Your task to perform on an android device: toggle javascript in the chrome app Image 0: 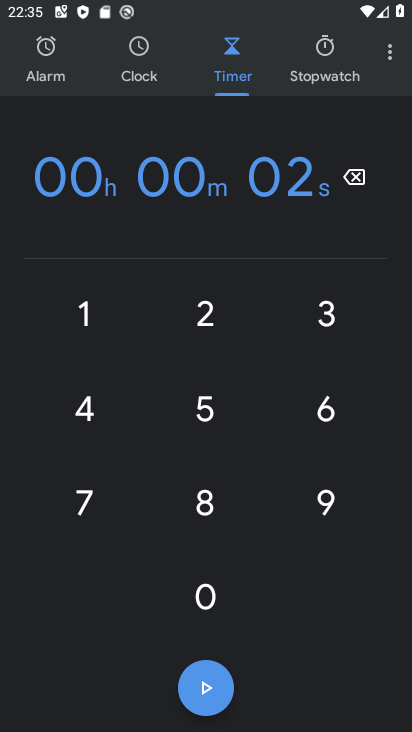
Step 0: press home button
Your task to perform on an android device: toggle javascript in the chrome app Image 1: 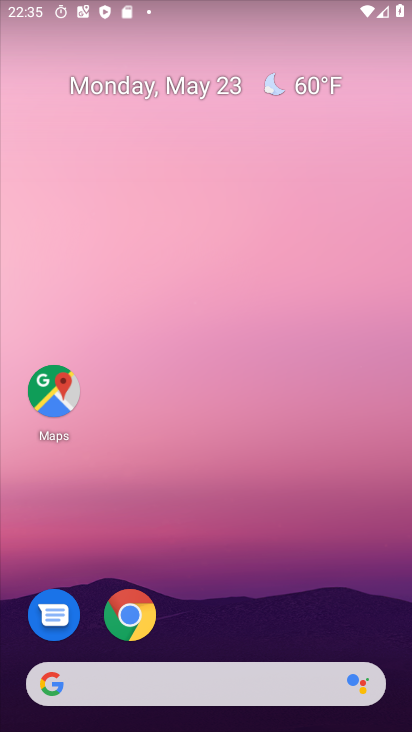
Step 1: drag from (222, 607) to (213, 155)
Your task to perform on an android device: toggle javascript in the chrome app Image 2: 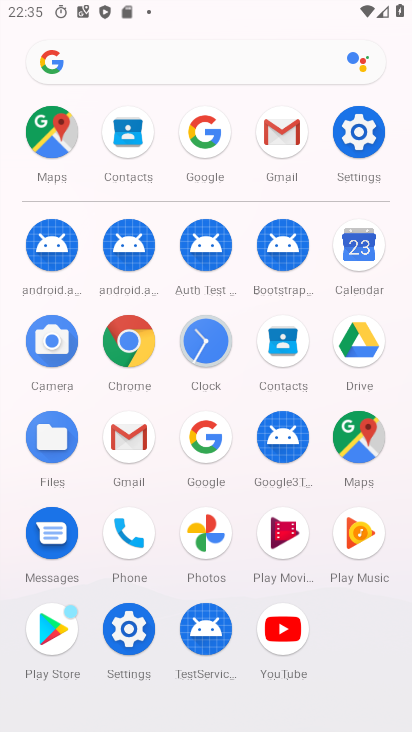
Step 2: click (130, 346)
Your task to perform on an android device: toggle javascript in the chrome app Image 3: 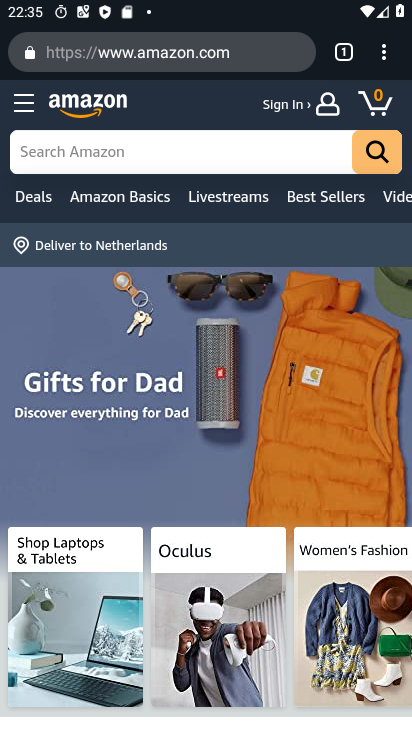
Step 3: click (381, 53)
Your task to perform on an android device: toggle javascript in the chrome app Image 4: 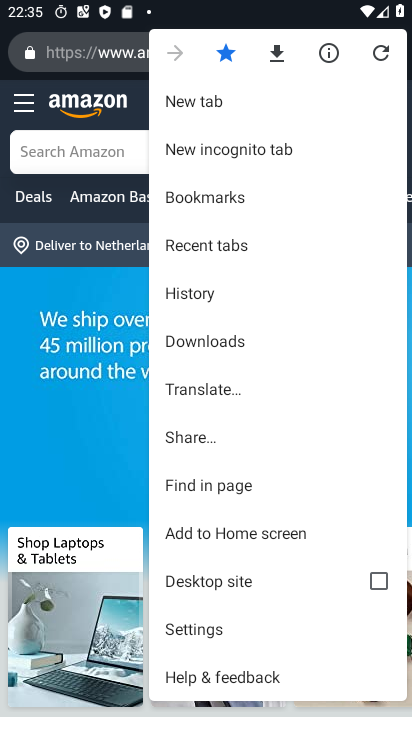
Step 4: click (219, 630)
Your task to perform on an android device: toggle javascript in the chrome app Image 5: 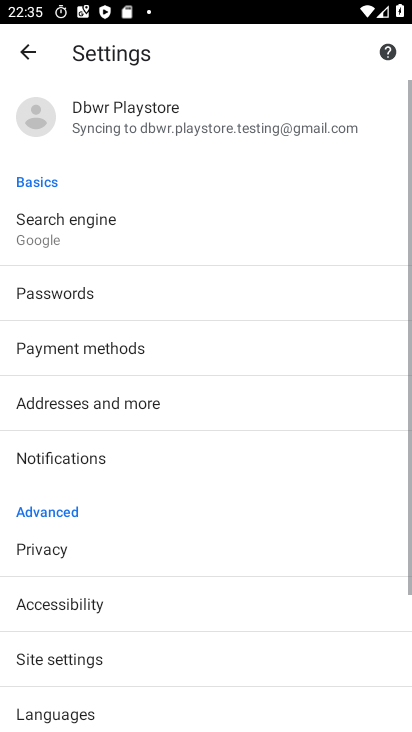
Step 5: drag from (228, 612) to (210, 307)
Your task to perform on an android device: toggle javascript in the chrome app Image 6: 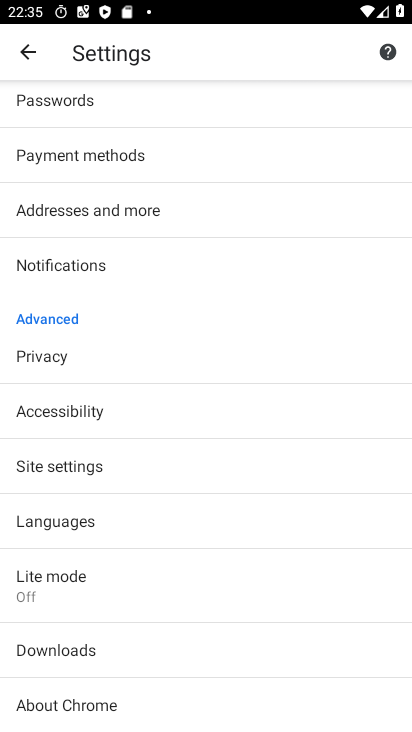
Step 6: click (71, 462)
Your task to perform on an android device: toggle javascript in the chrome app Image 7: 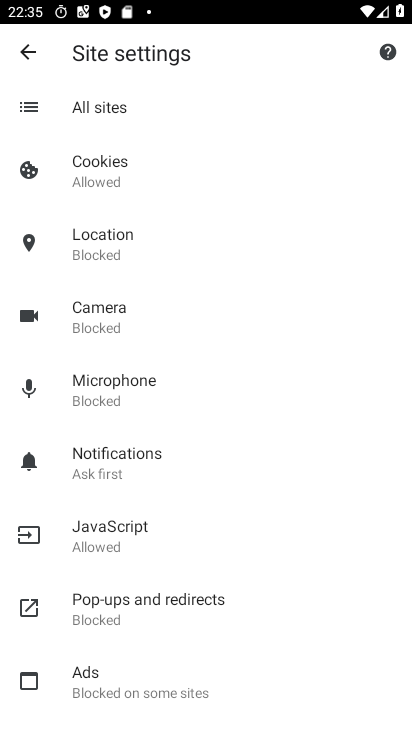
Step 7: click (125, 540)
Your task to perform on an android device: toggle javascript in the chrome app Image 8: 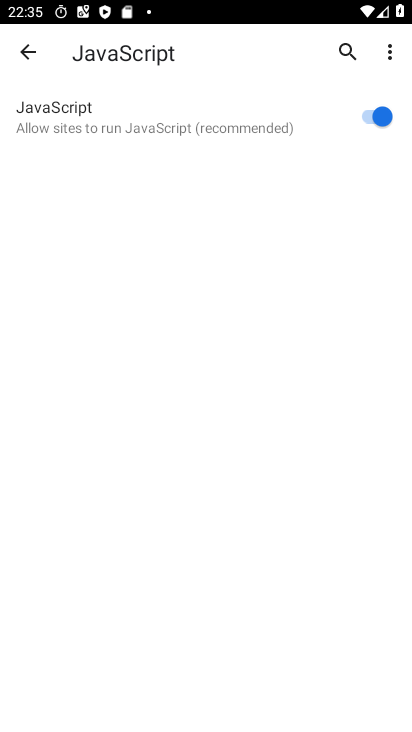
Step 8: click (368, 125)
Your task to perform on an android device: toggle javascript in the chrome app Image 9: 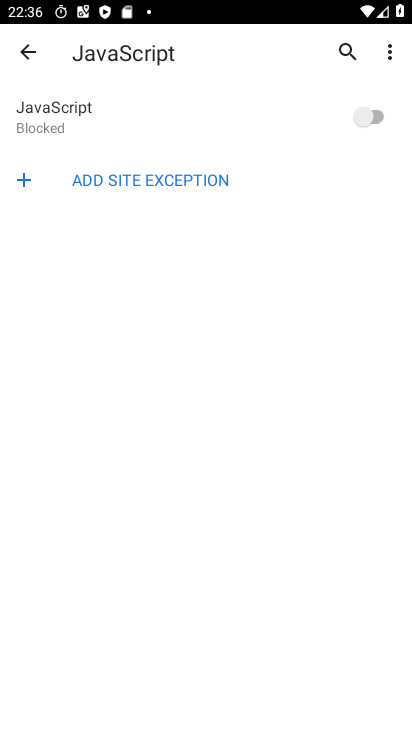
Step 9: task complete